Your task to perform on an android device: Empty the shopping cart on walmart. Search for energizer triple a on walmart, select the first entry, add it to the cart, then select checkout. Image 0: 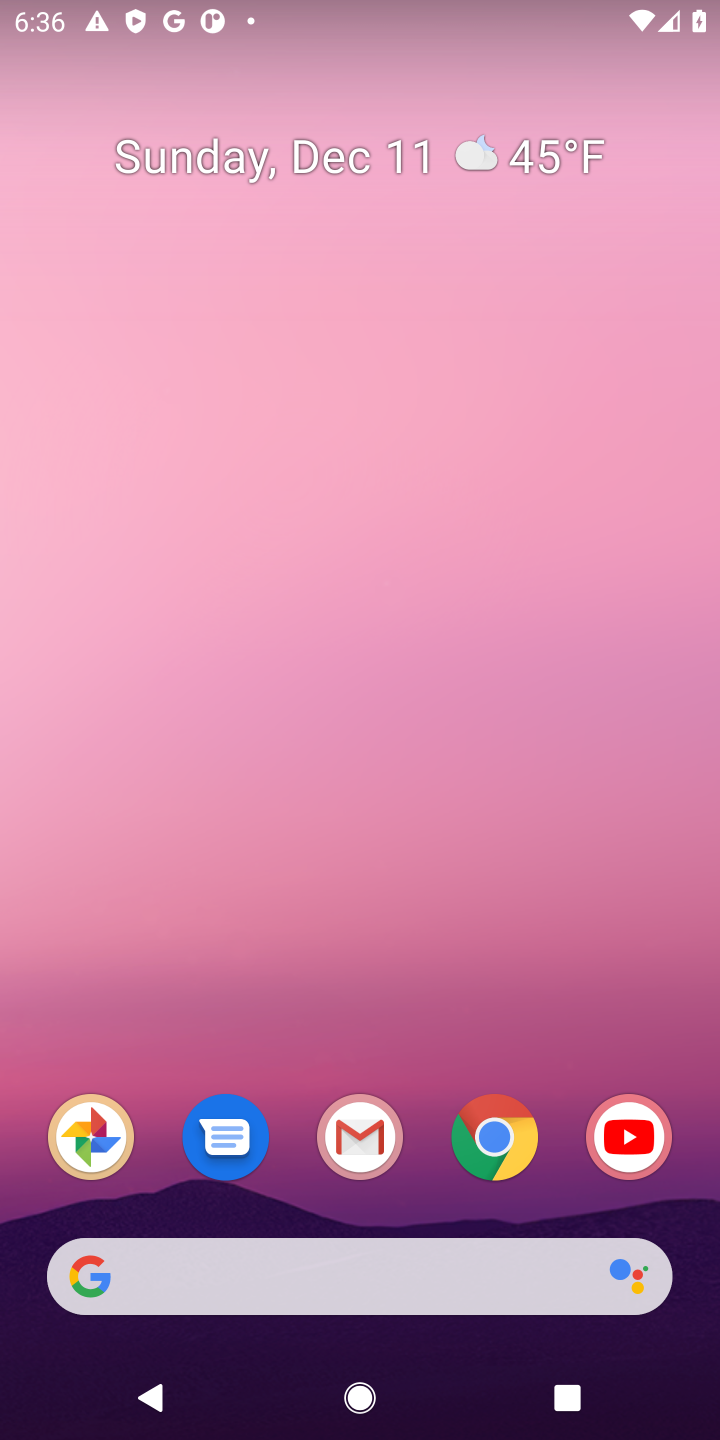
Step 0: click (493, 1157)
Your task to perform on an android device: Empty the shopping cart on walmart. Search for energizer triple a on walmart, select the first entry, add it to the cart, then select checkout. Image 1: 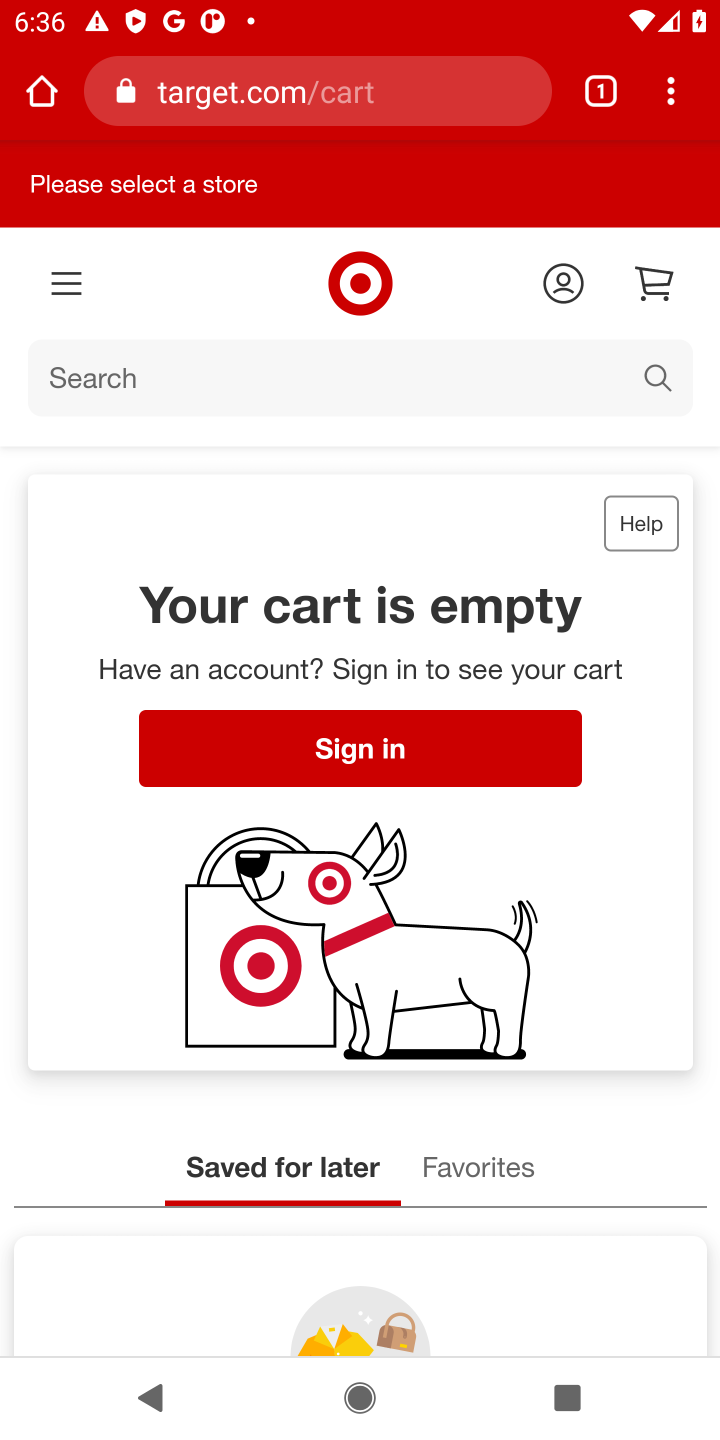
Step 1: click (375, 106)
Your task to perform on an android device: Empty the shopping cart on walmart. Search for energizer triple a on walmart, select the first entry, add it to the cart, then select checkout. Image 2: 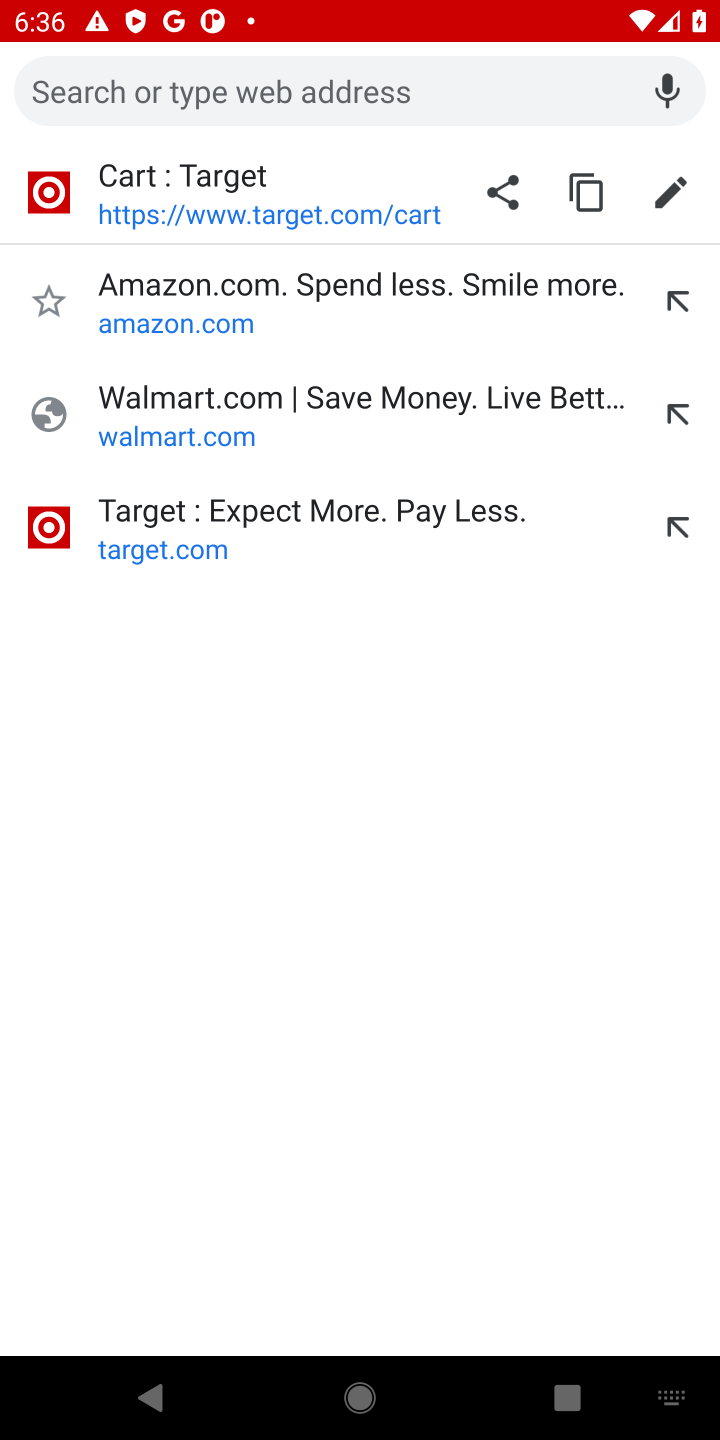
Step 2: click (208, 433)
Your task to perform on an android device: Empty the shopping cart on walmart. Search for energizer triple a on walmart, select the first entry, add it to the cart, then select checkout. Image 3: 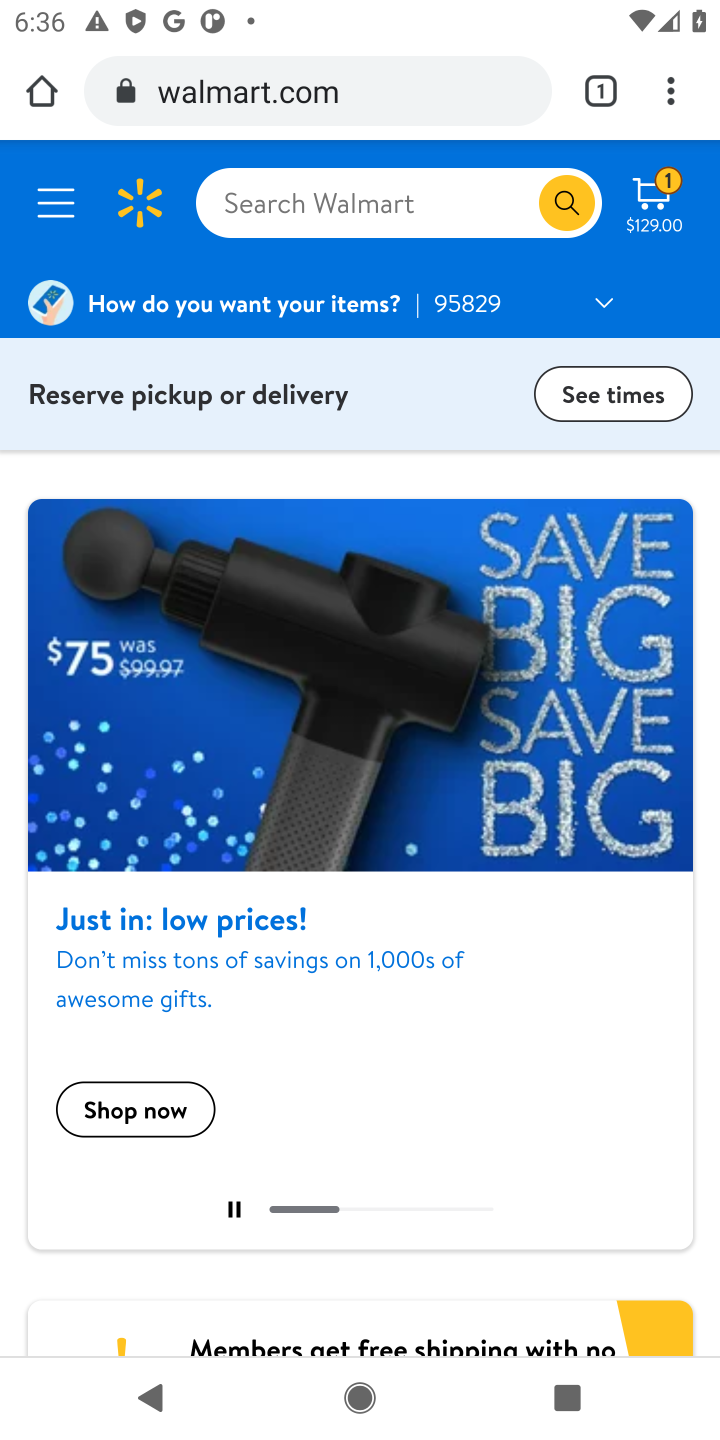
Step 3: click (676, 194)
Your task to perform on an android device: Empty the shopping cart on walmart. Search for energizer triple a on walmart, select the first entry, add it to the cart, then select checkout. Image 4: 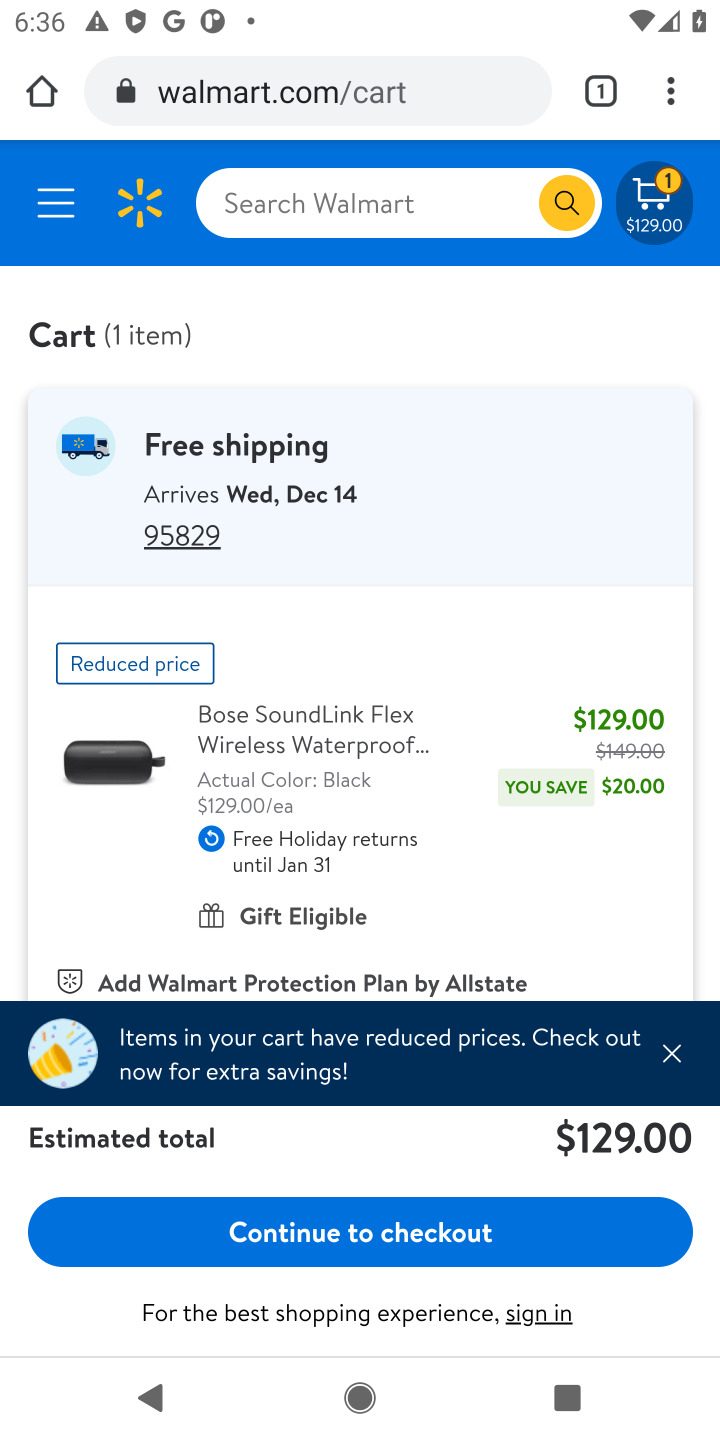
Step 4: click (679, 1056)
Your task to perform on an android device: Empty the shopping cart on walmart. Search for energizer triple a on walmart, select the first entry, add it to the cart, then select checkout. Image 5: 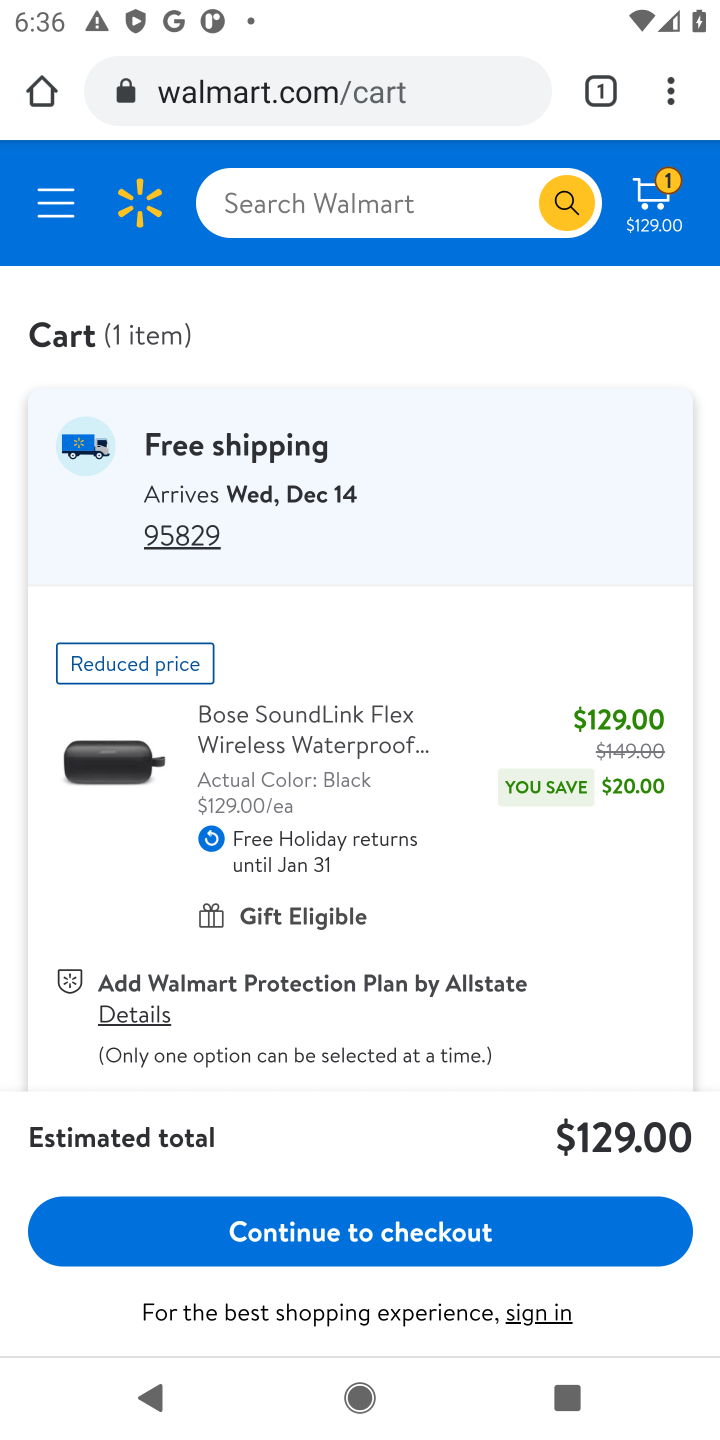
Step 5: drag from (557, 999) to (585, 404)
Your task to perform on an android device: Empty the shopping cart on walmart. Search for energizer triple a on walmart, select the first entry, add it to the cart, then select checkout. Image 6: 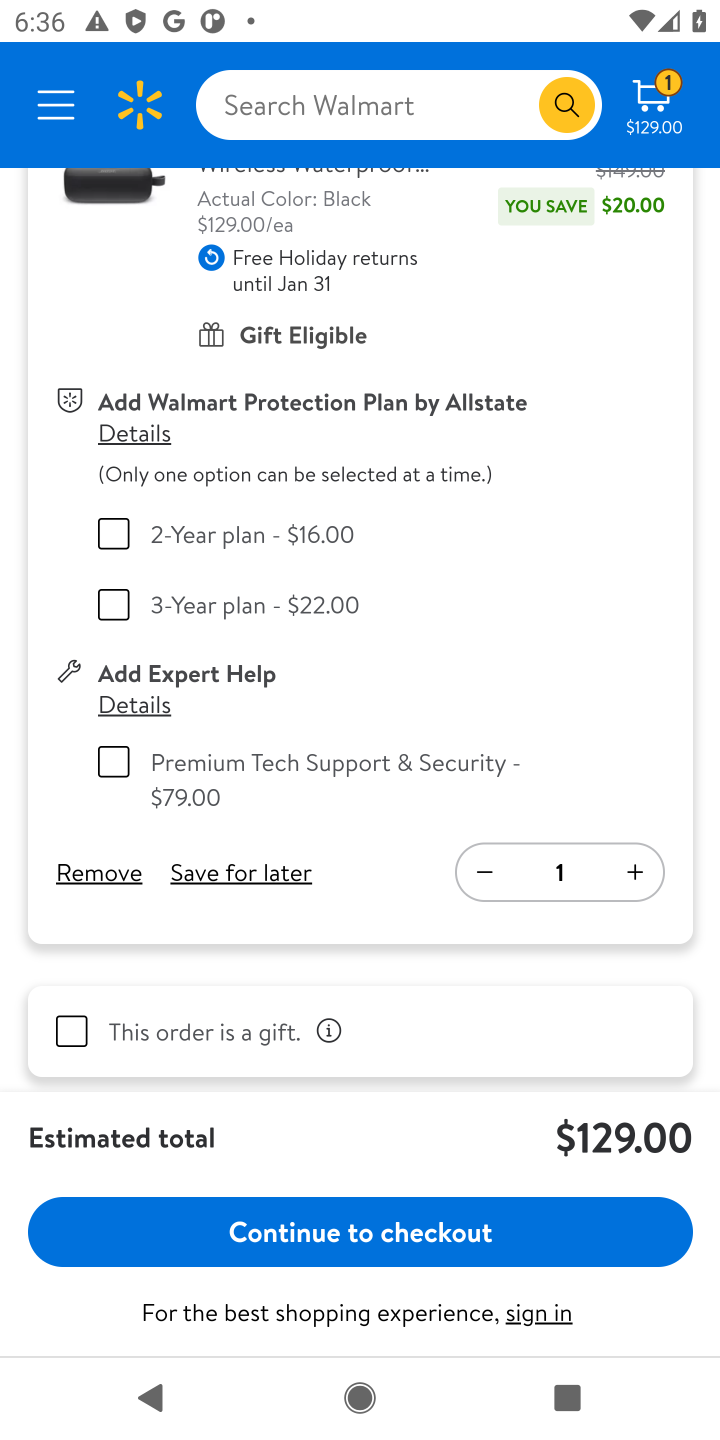
Step 6: click (73, 871)
Your task to perform on an android device: Empty the shopping cart on walmart. Search for energizer triple a on walmart, select the first entry, add it to the cart, then select checkout. Image 7: 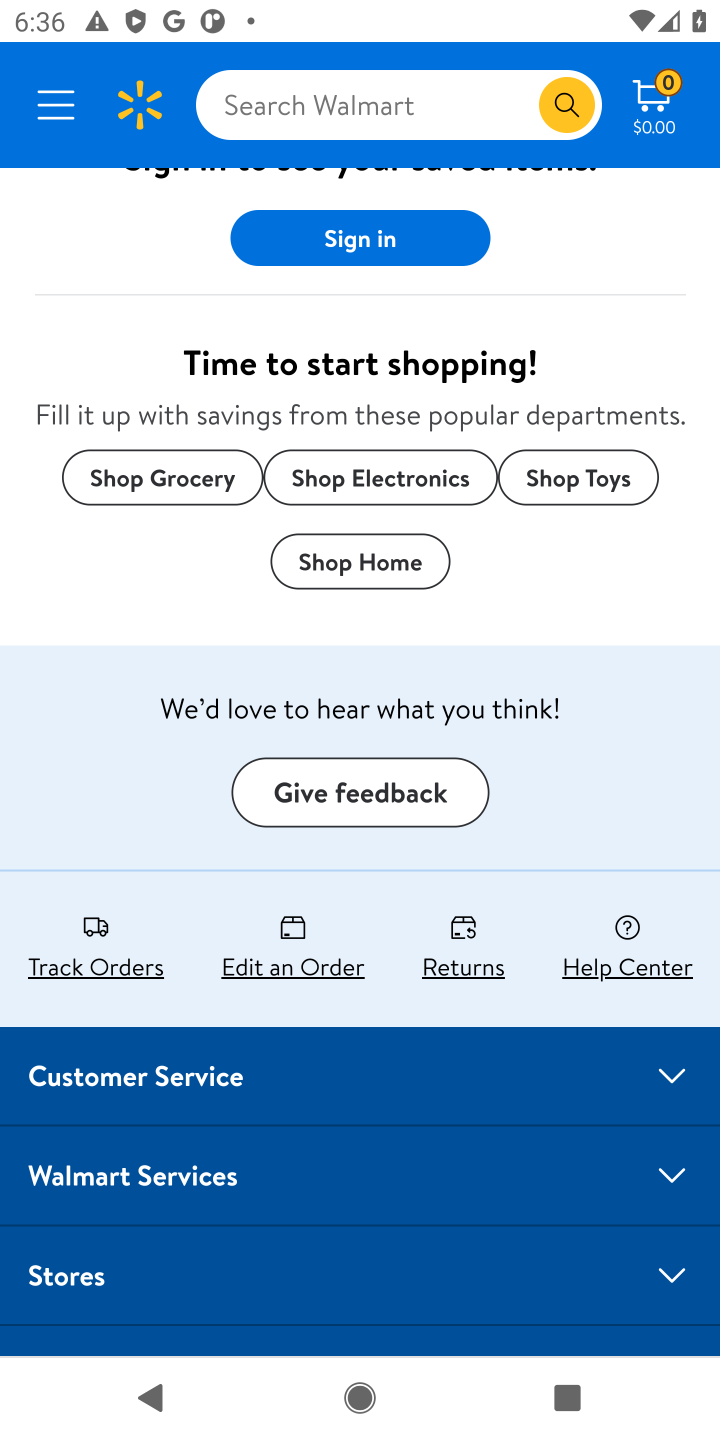
Step 7: click (343, 122)
Your task to perform on an android device: Empty the shopping cart on walmart. Search for energizer triple a on walmart, select the first entry, add it to the cart, then select checkout. Image 8: 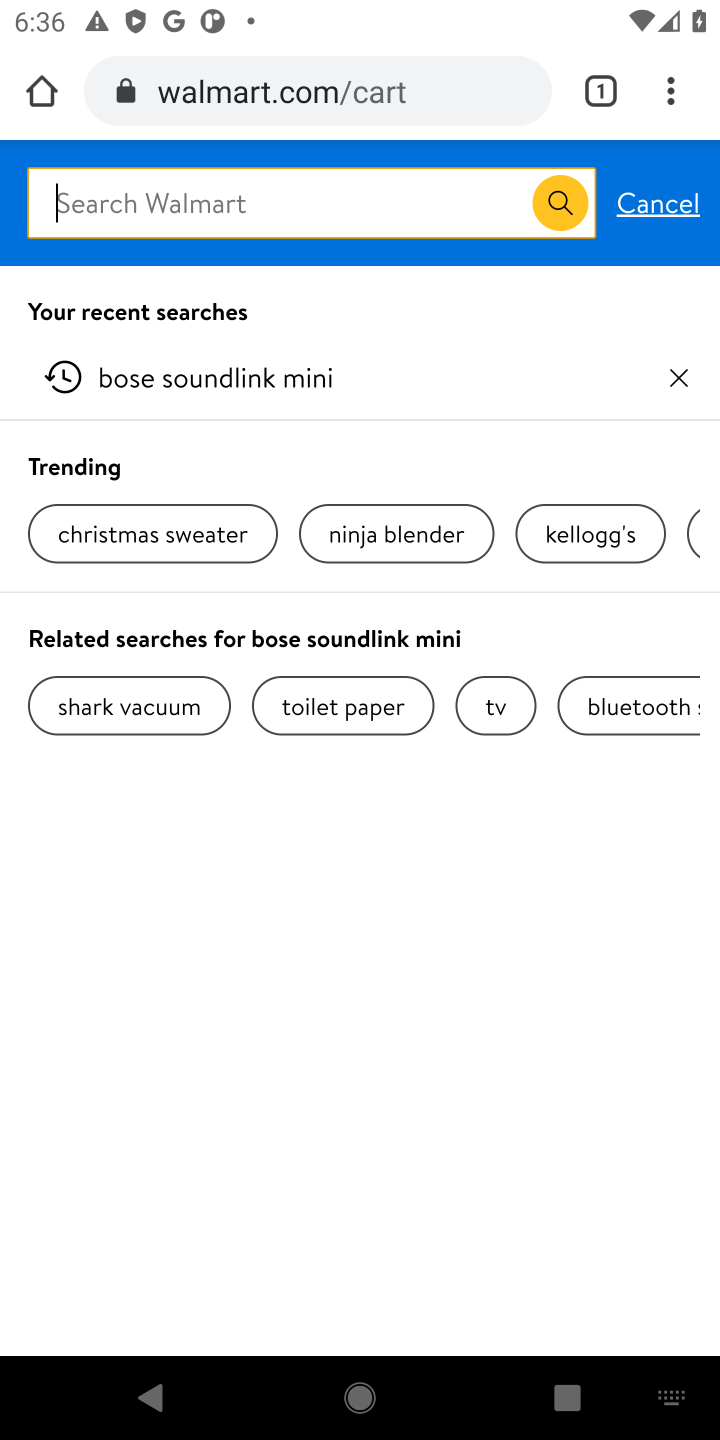
Step 8: click (533, 1402)
Your task to perform on an android device: Empty the shopping cart on walmart. Search for energizer triple a on walmart, select the first entry, add it to the cart, then select checkout. Image 9: 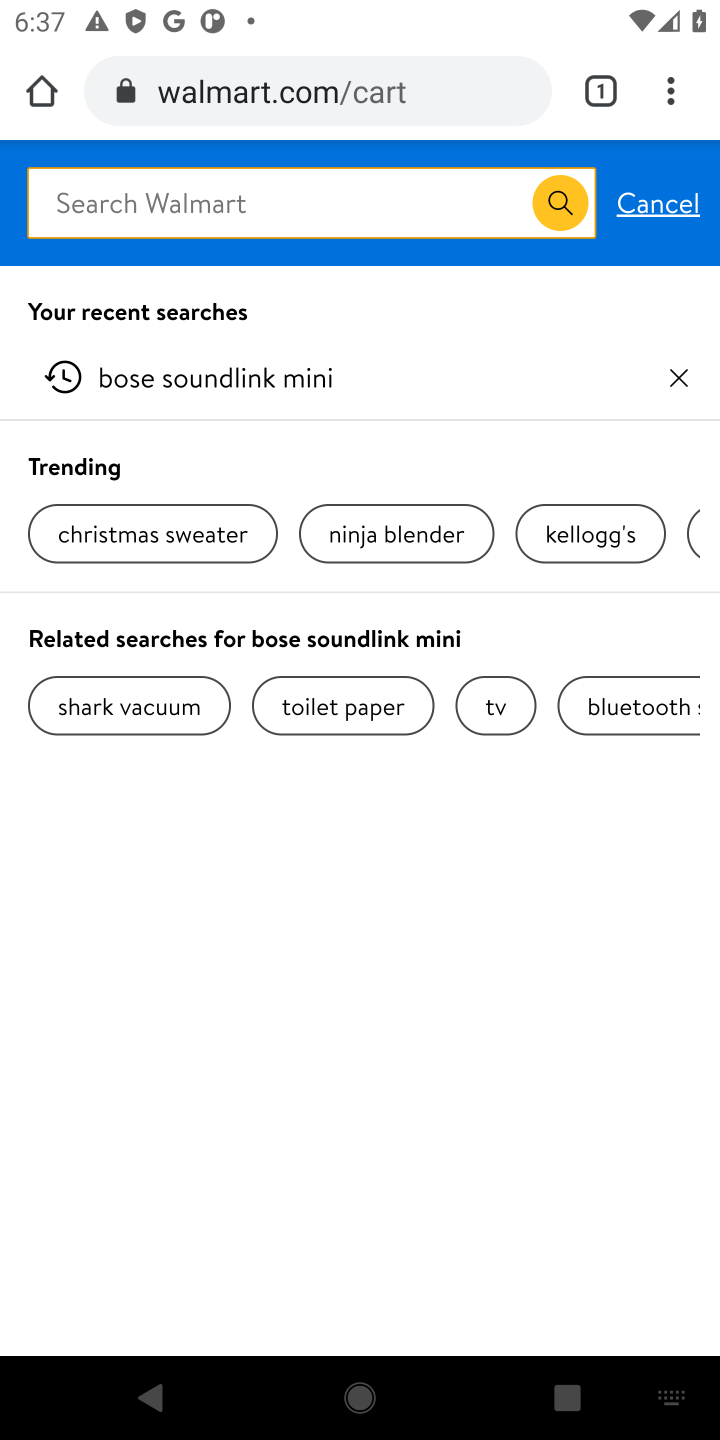
Step 9: type "energizer triple a"
Your task to perform on an android device: Empty the shopping cart on walmart. Search for energizer triple a on walmart, select the first entry, add it to the cart, then select checkout. Image 10: 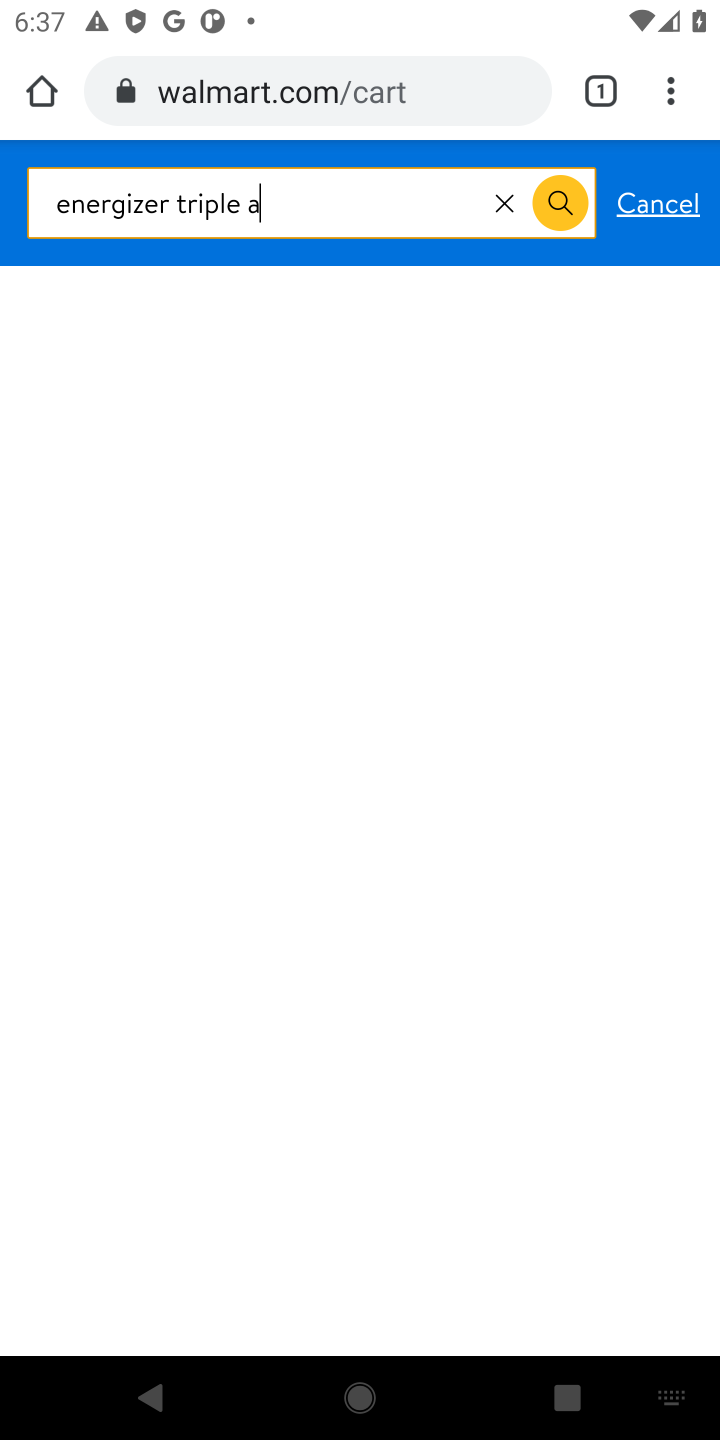
Step 10: drag from (581, 1438) to (713, 442)
Your task to perform on an android device: Empty the shopping cart on walmart. Search for energizer triple a on walmart, select the first entry, add it to the cart, then select checkout. Image 11: 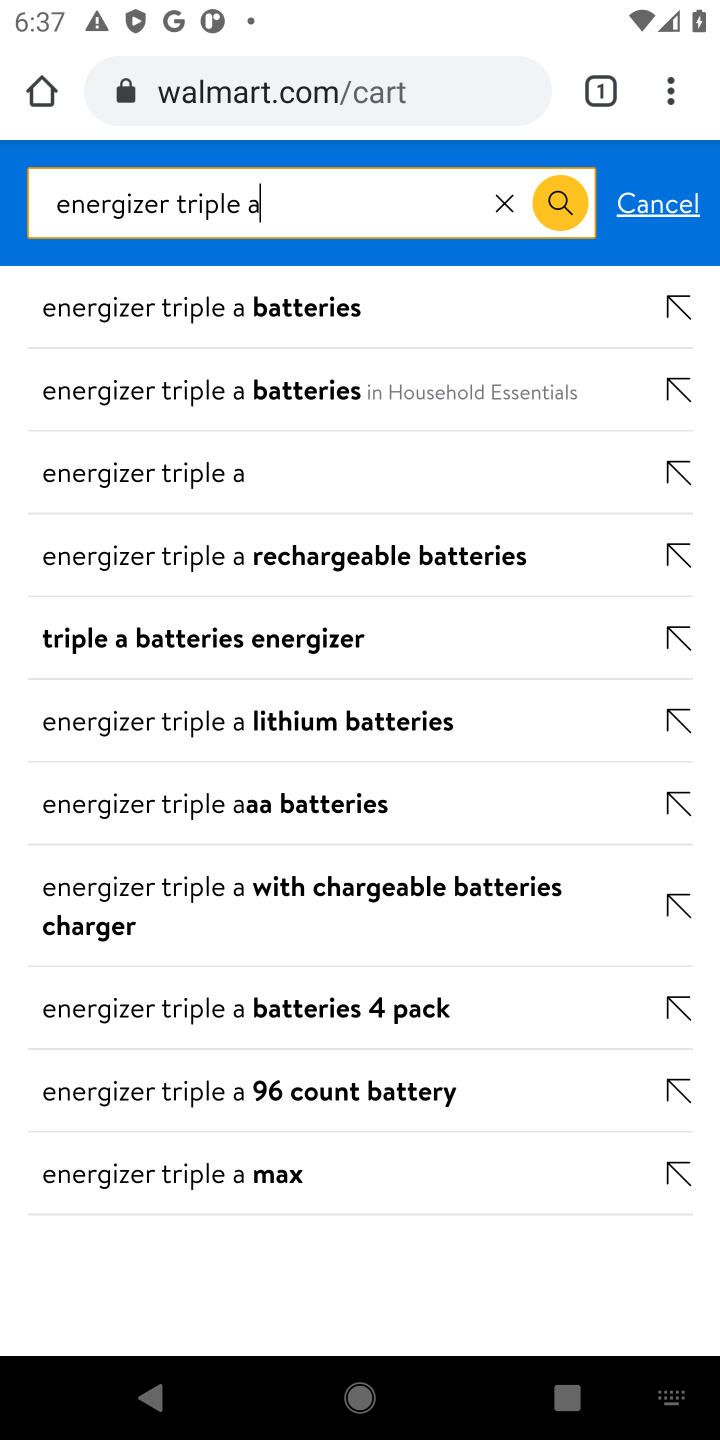
Step 11: click (567, 215)
Your task to perform on an android device: Empty the shopping cart on walmart. Search for energizer triple a on walmart, select the first entry, add it to the cart, then select checkout. Image 12: 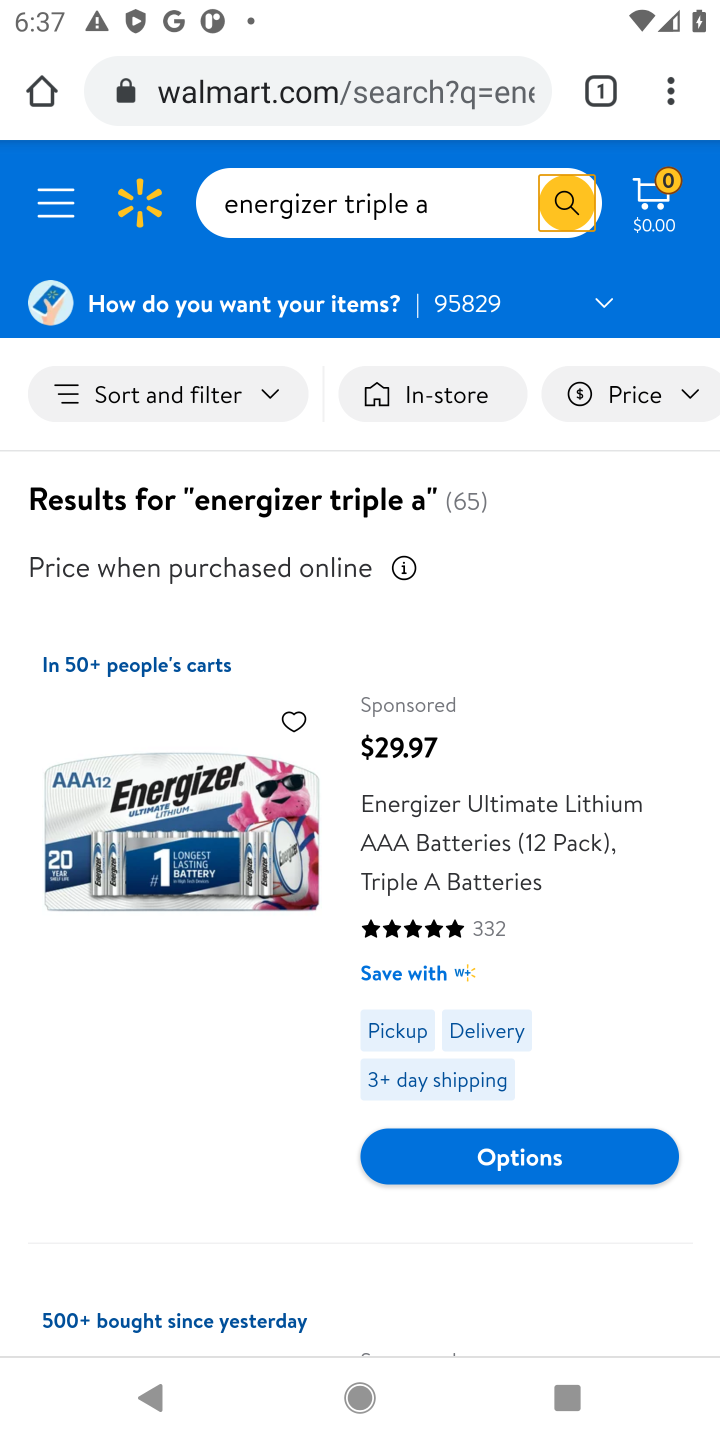
Step 12: click (603, 1173)
Your task to perform on an android device: Empty the shopping cart on walmart. Search for energizer triple a on walmart, select the first entry, add it to the cart, then select checkout. Image 13: 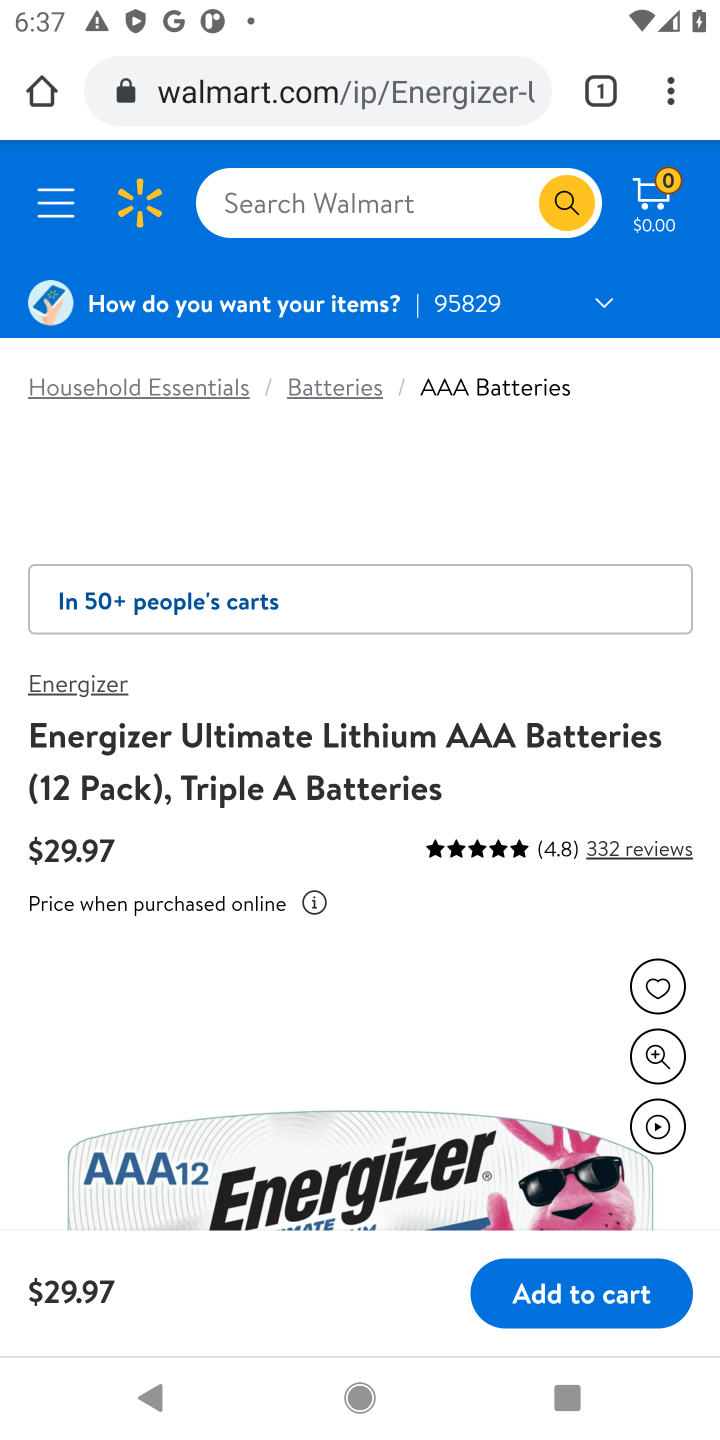
Step 13: click (581, 1301)
Your task to perform on an android device: Empty the shopping cart on walmart. Search for energizer triple a on walmart, select the first entry, add it to the cart, then select checkout. Image 14: 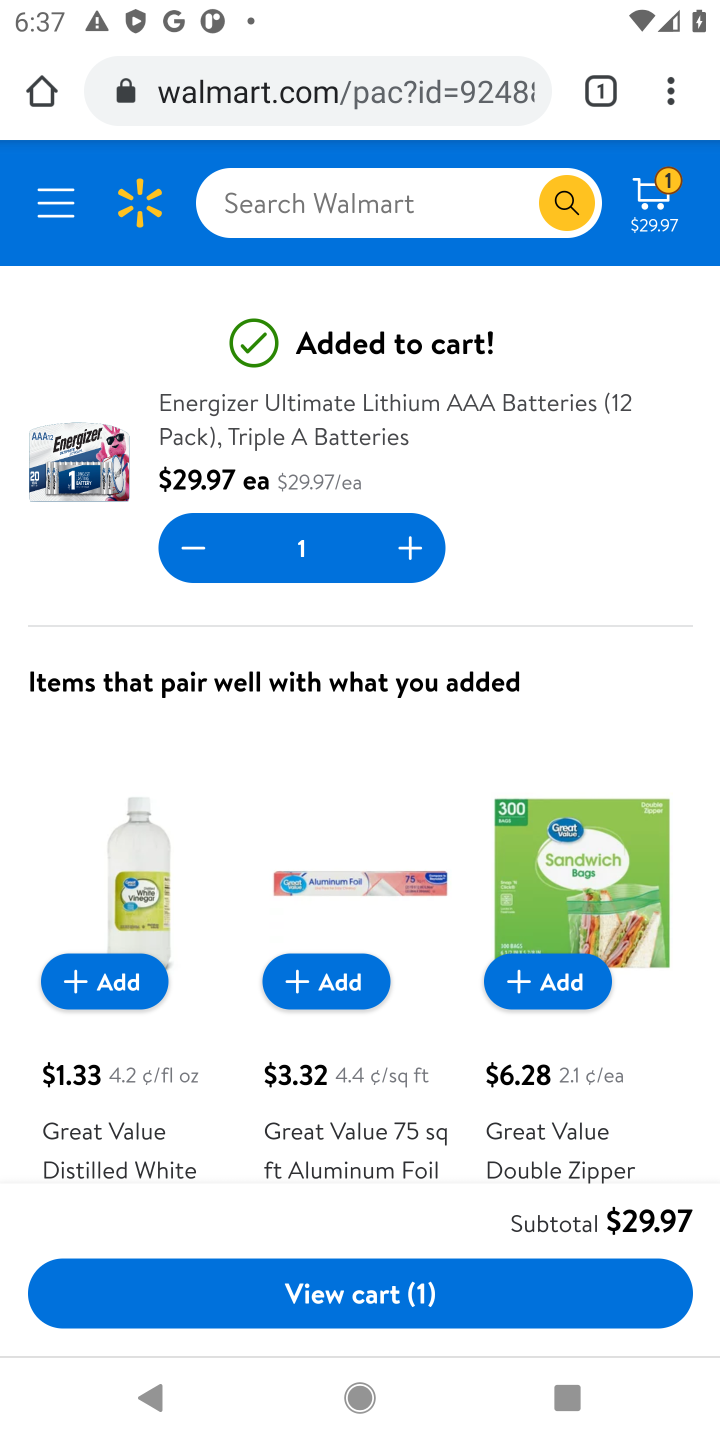
Step 14: click (581, 1301)
Your task to perform on an android device: Empty the shopping cart on walmart. Search for energizer triple a on walmart, select the first entry, add it to the cart, then select checkout. Image 15: 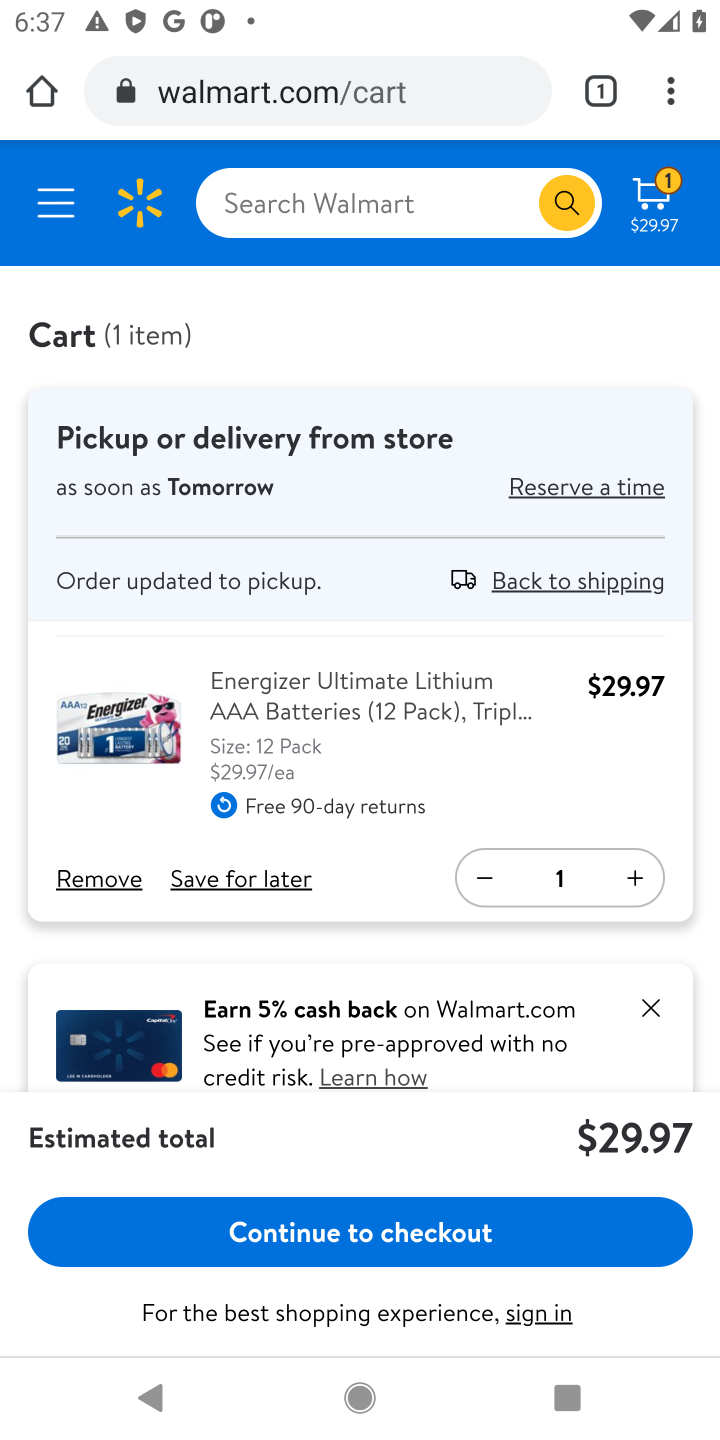
Step 15: click (307, 1236)
Your task to perform on an android device: Empty the shopping cart on walmart. Search for energizer triple a on walmart, select the first entry, add it to the cart, then select checkout. Image 16: 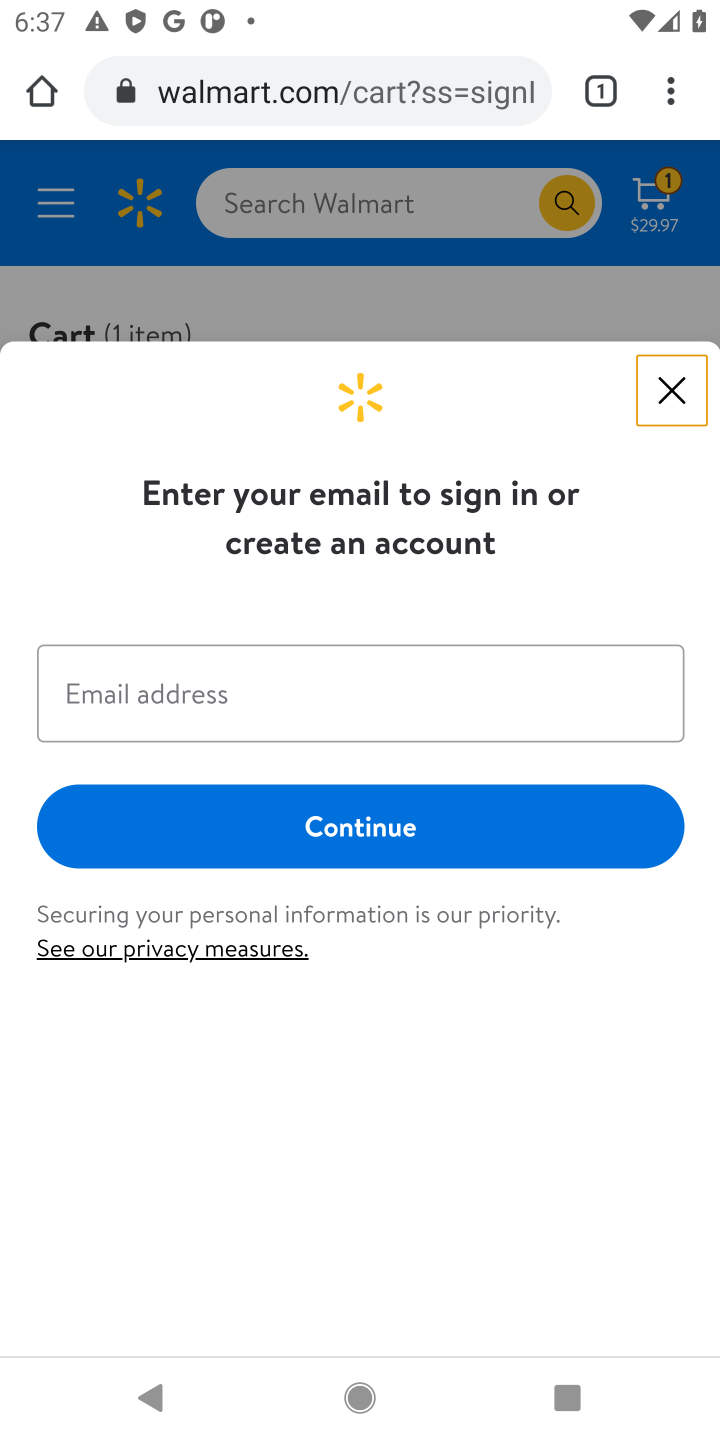
Step 16: task complete